Your task to perform on an android device: turn off smart reply in the gmail app Image 0: 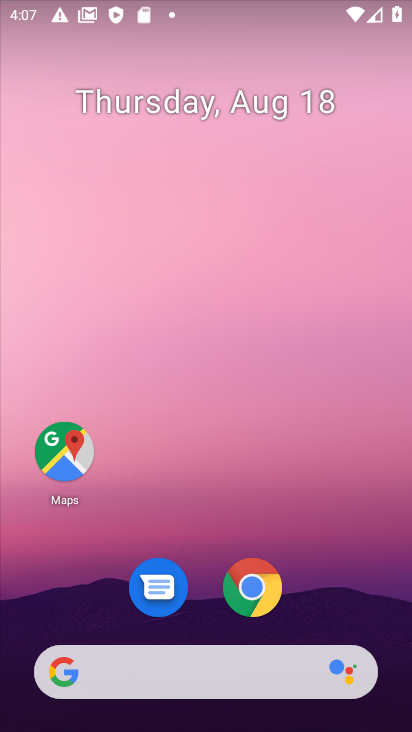
Step 0: drag from (295, 550) to (263, 5)
Your task to perform on an android device: turn off smart reply in the gmail app Image 1: 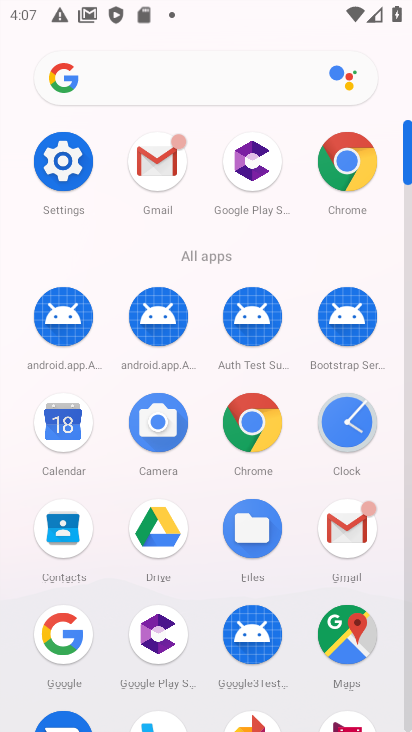
Step 1: click (355, 520)
Your task to perform on an android device: turn off smart reply in the gmail app Image 2: 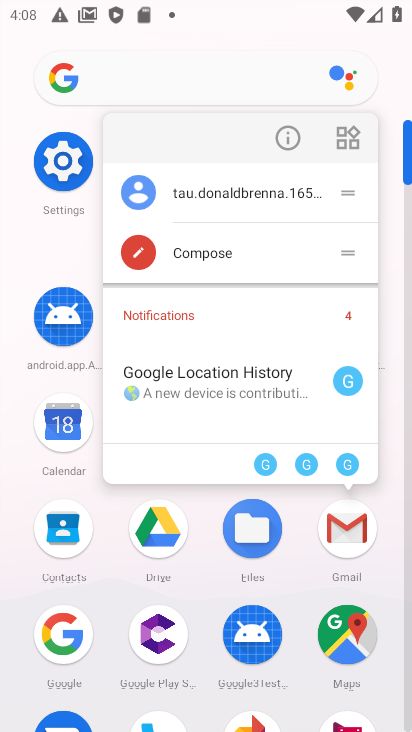
Step 2: click (344, 527)
Your task to perform on an android device: turn off smart reply in the gmail app Image 3: 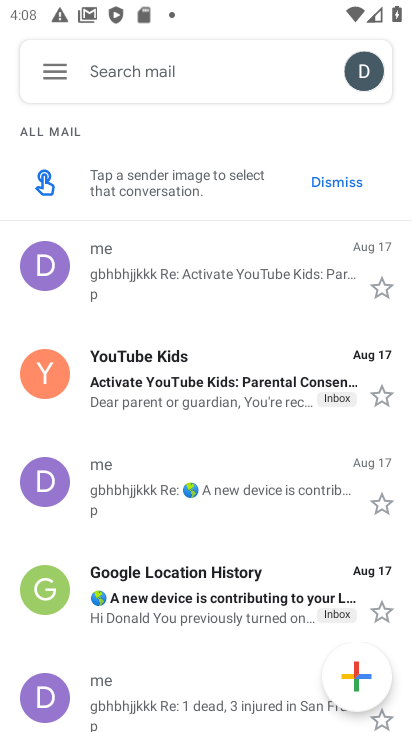
Step 3: click (49, 74)
Your task to perform on an android device: turn off smart reply in the gmail app Image 4: 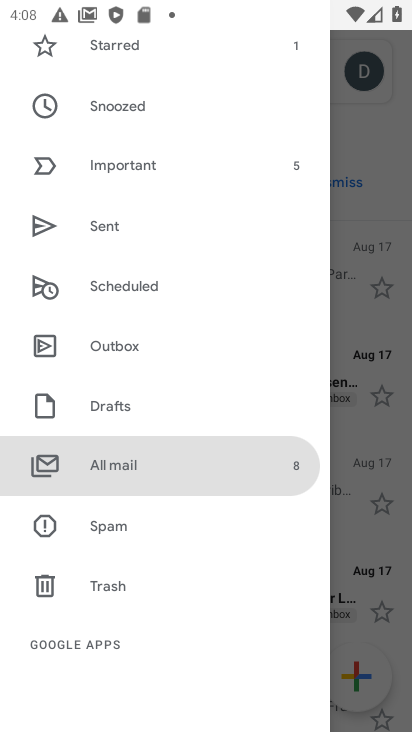
Step 4: drag from (202, 249) to (188, 559)
Your task to perform on an android device: turn off smart reply in the gmail app Image 5: 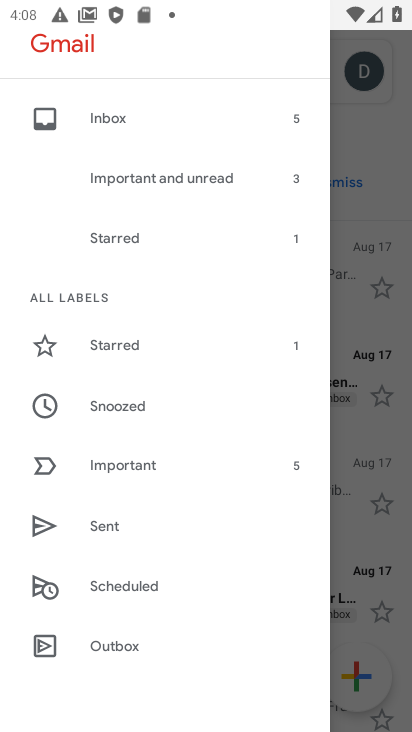
Step 5: drag from (136, 547) to (157, 0)
Your task to perform on an android device: turn off smart reply in the gmail app Image 6: 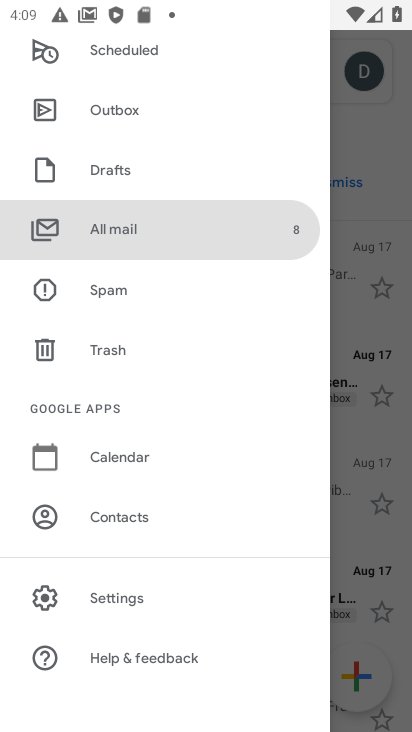
Step 6: click (130, 590)
Your task to perform on an android device: turn off smart reply in the gmail app Image 7: 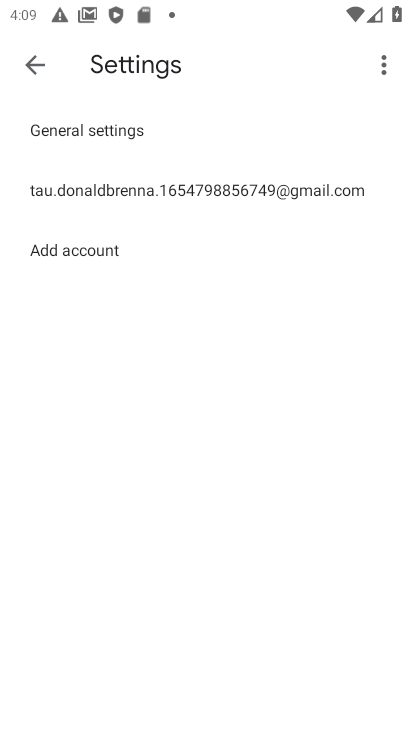
Step 7: click (224, 187)
Your task to perform on an android device: turn off smart reply in the gmail app Image 8: 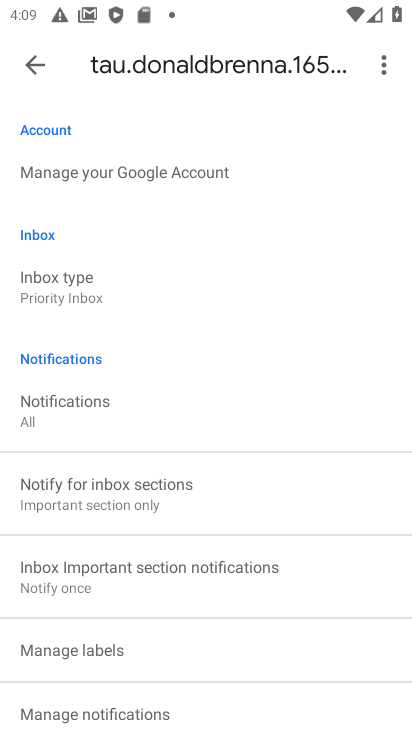
Step 8: drag from (225, 613) to (231, 191)
Your task to perform on an android device: turn off smart reply in the gmail app Image 9: 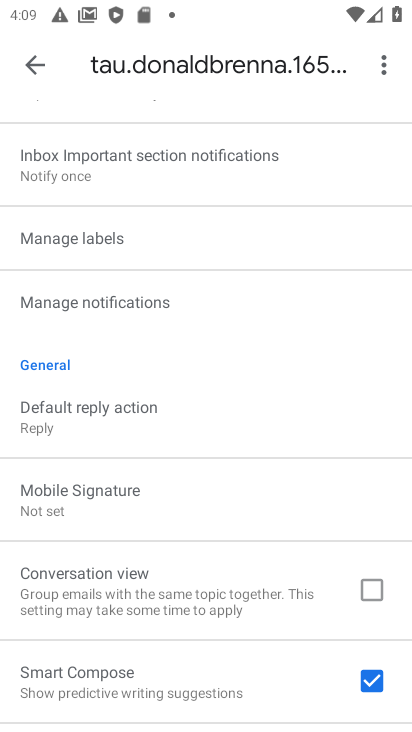
Step 9: drag from (134, 645) to (222, 91)
Your task to perform on an android device: turn off smart reply in the gmail app Image 10: 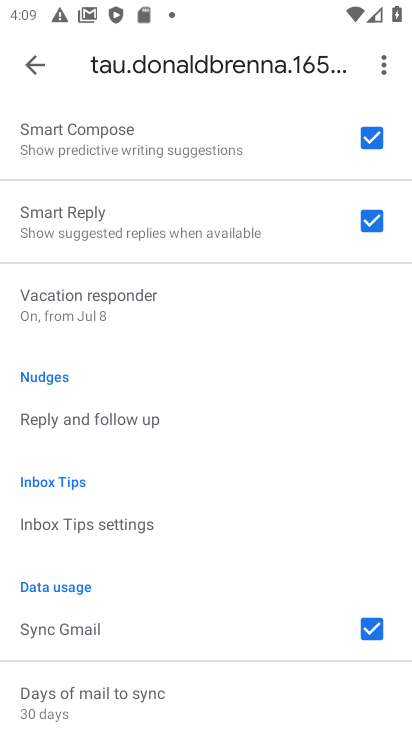
Step 10: drag from (152, 609) to (233, 507)
Your task to perform on an android device: turn off smart reply in the gmail app Image 11: 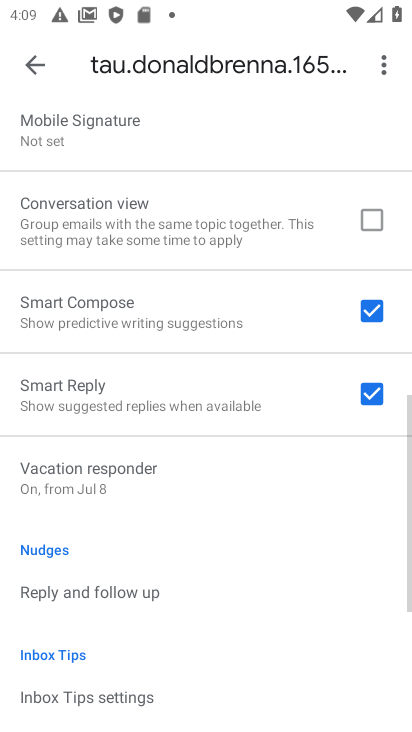
Step 11: click (274, 406)
Your task to perform on an android device: turn off smart reply in the gmail app Image 12: 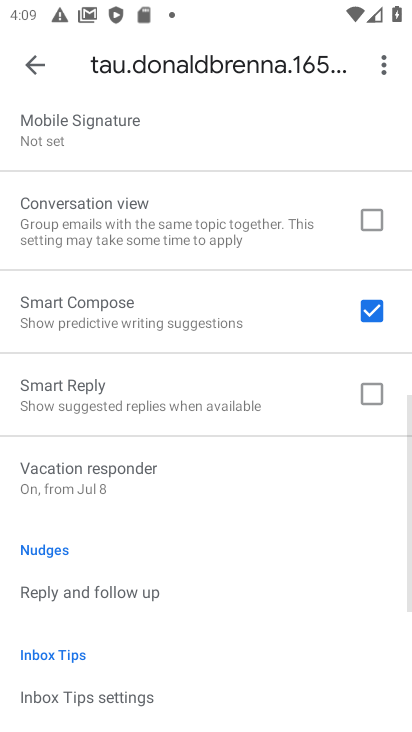
Step 12: task complete